Your task to perform on an android device: What's the weather today? Image 0: 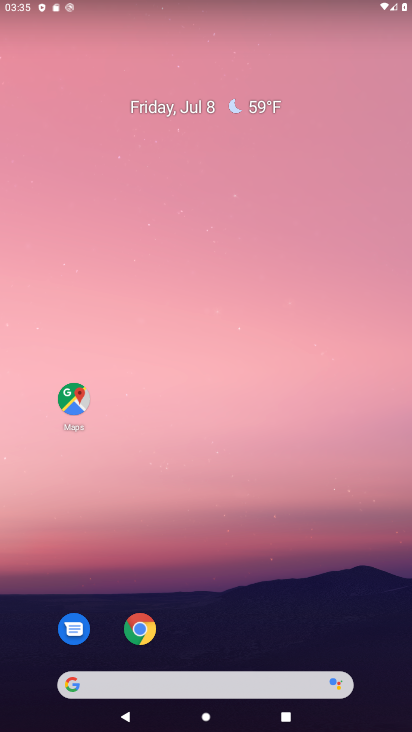
Step 0: press home button
Your task to perform on an android device: What's the weather today? Image 1: 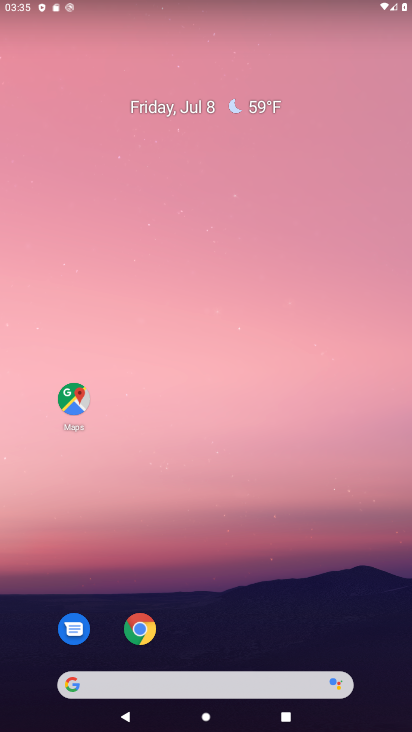
Step 1: drag from (207, 650) to (240, 73)
Your task to perform on an android device: What's the weather today? Image 2: 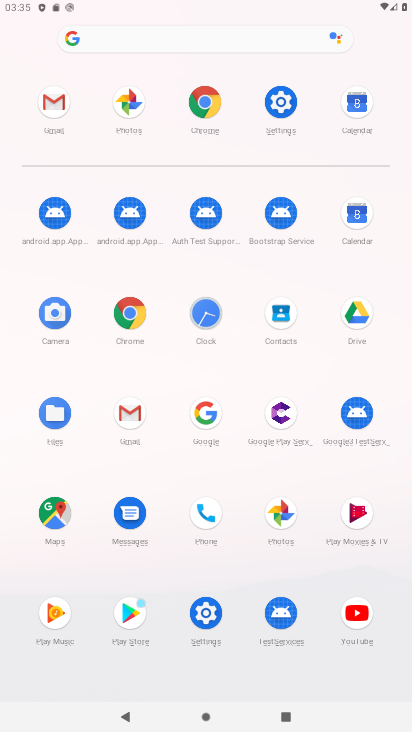
Step 2: press home button
Your task to perform on an android device: What's the weather today? Image 3: 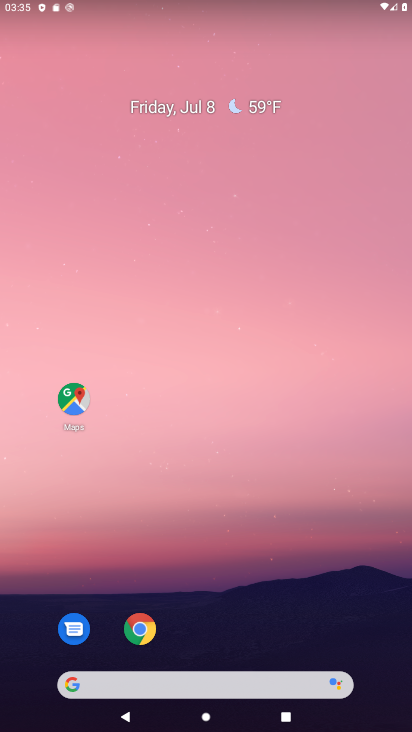
Step 3: click (171, 678)
Your task to perform on an android device: What's the weather today? Image 4: 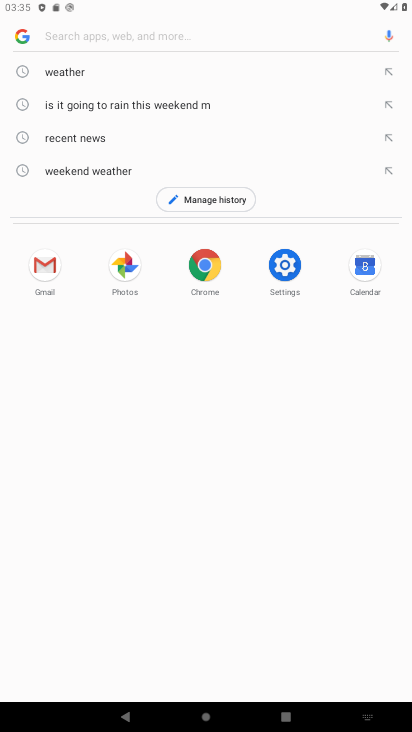
Step 4: click (95, 72)
Your task to perform on an android device: What's the weather today? Image 5: 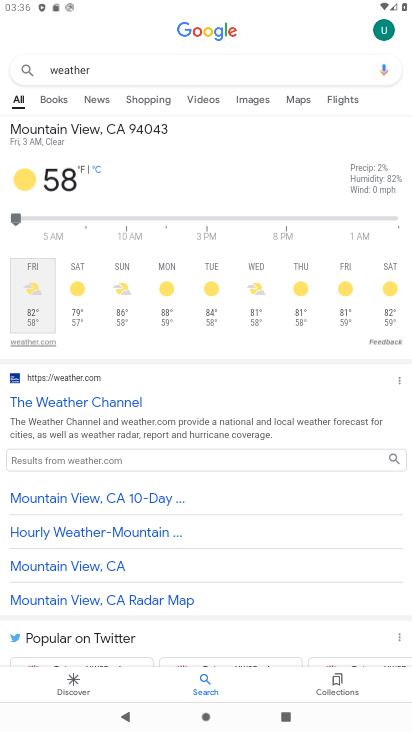
Step 5: task complete